Your task to perform on an android device: turn pop-ups on in chrome Image 0: 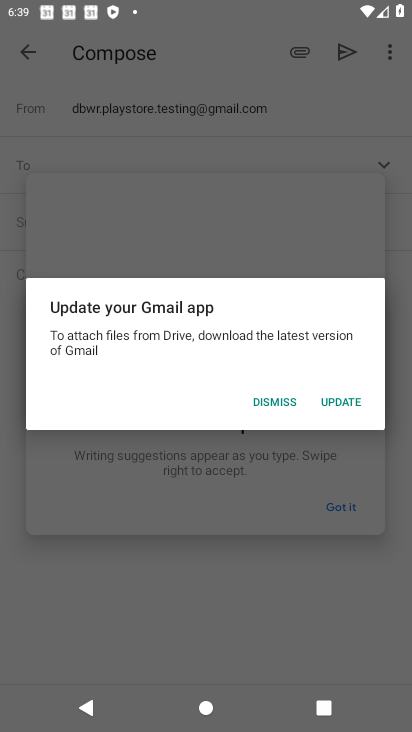
Step 0: press home button
Your task to perform on an android device: turn pop-ups on in chrome Image 1: 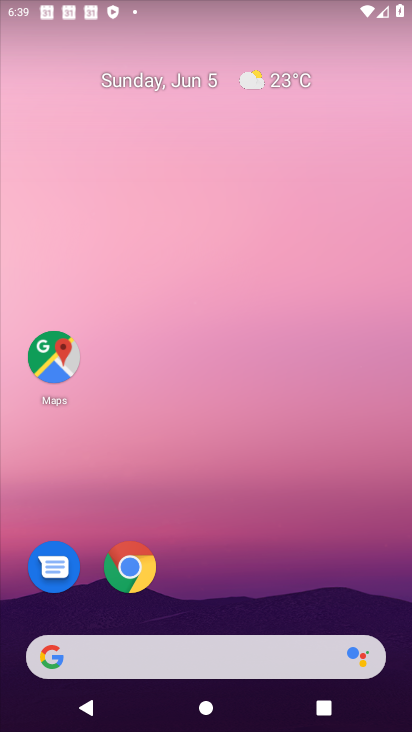
Step 1: drag from (386, 628) to (181, 57)
Your task to perform on an android device: turn pop-ups on in chrome Image 2: 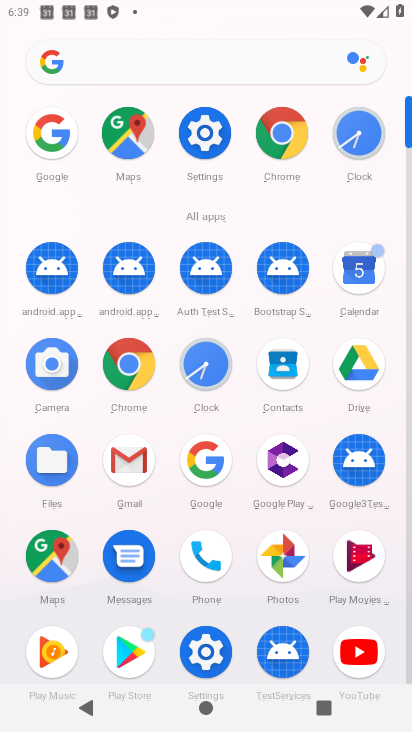
Step 2: click (271, 142)
Your task to perform on an android device: turn pop-ups on in chrome Image 3: 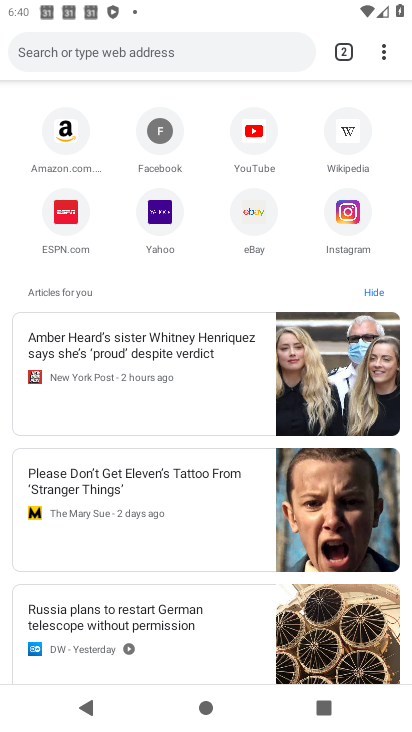
Step 3: click (377, 41)
Your task to perform on an android device: turn pop-ups on in chrome Image 4: 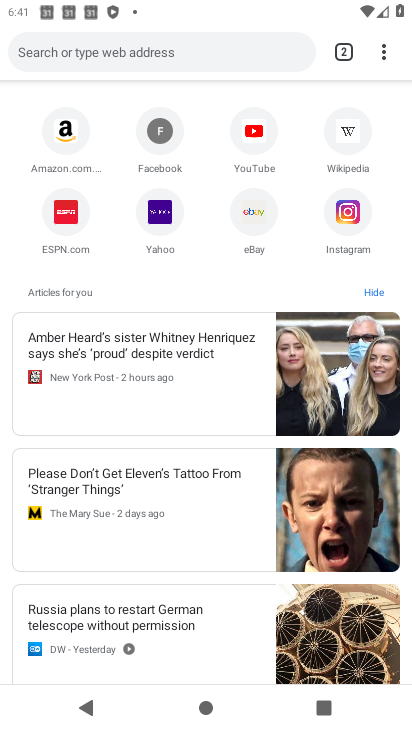
Step 4: click (382, 48)
Your task to perform on an android device: turn pop-ups on in chrome Image 5: 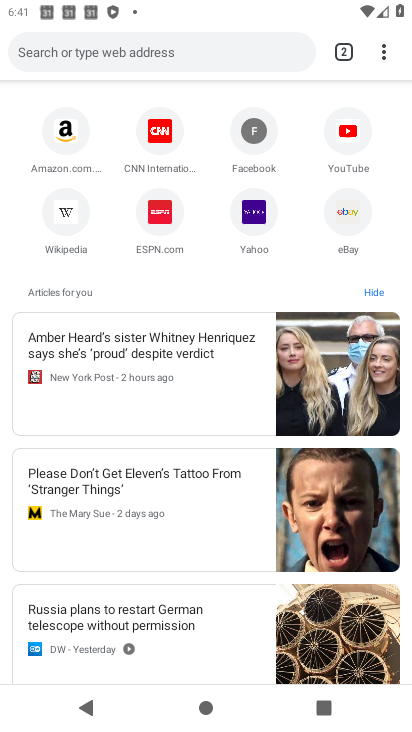
Step 5: click (382, 48)
Your task to perform on an android device: turn pop-ups on in chrome Image 6: 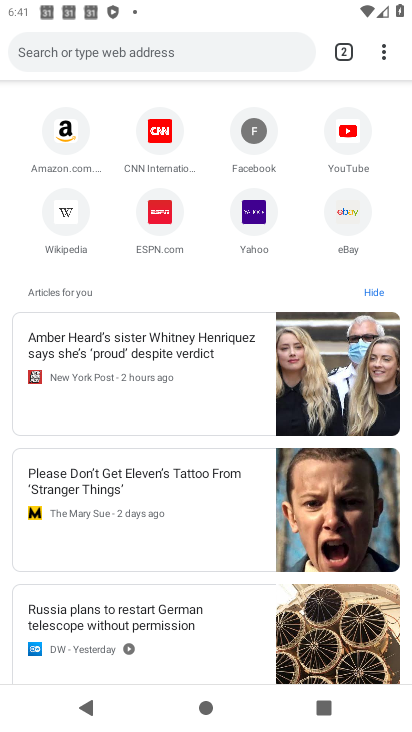
Step 6: click (382, 48)
Your task to perform on an android device: turn pop-ups on in chrome Image 7: 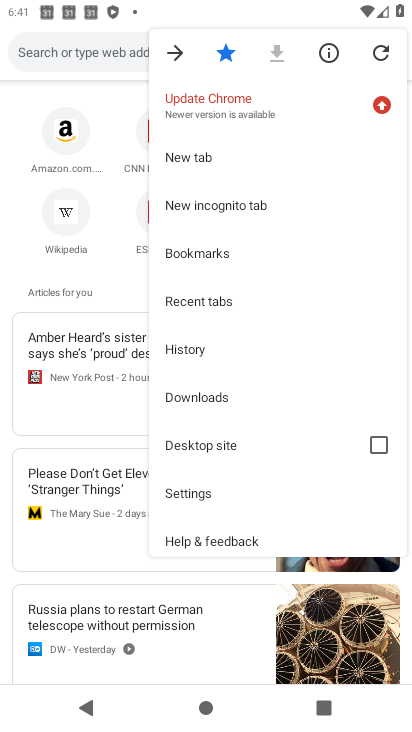
Step 7: click (244, 493)
Your task to perform on an android device: turn pop-ups on in chrome Image 8: 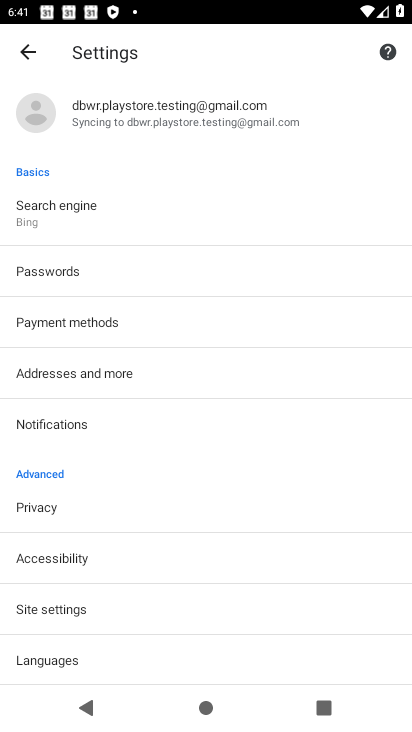
Step 8: click (89, 603)
Your task to perform on an android device: turn pop-ups on in chrome Image 9: 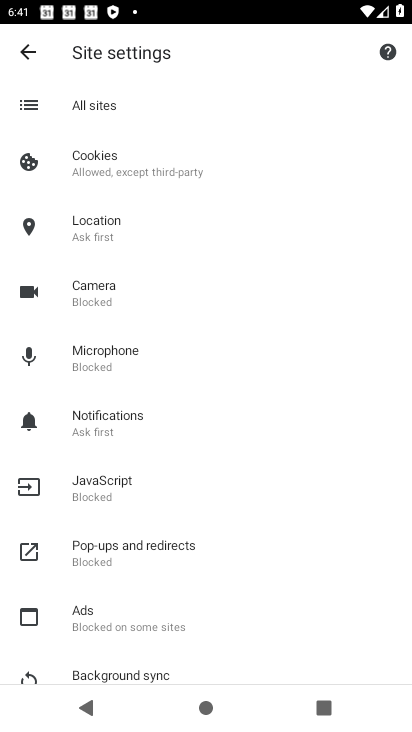
Step 9: click (130, 566)
Your task to perform on an android device: turn pop-ups on in chrome Image 10: 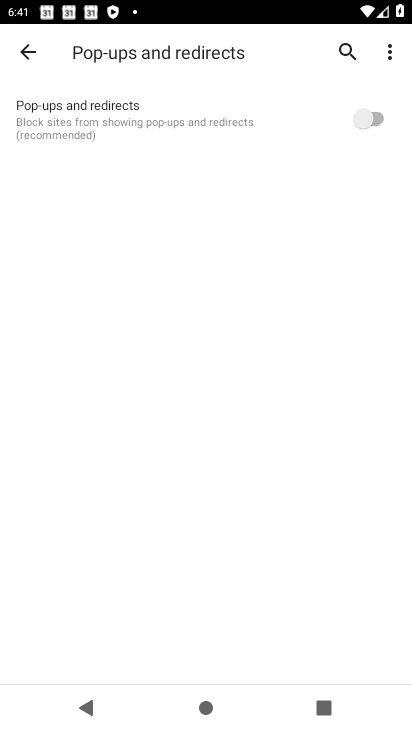
Step 10: click (384, 130)
Your task to perform on an android device: turn pop-ups on in chrome Image 11: 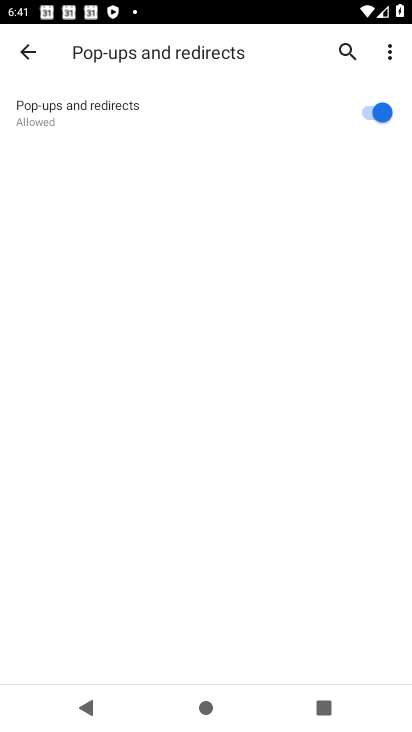
Step 11: task complete